Your task to perform on an android device: What's on my calendar today? Image 0: 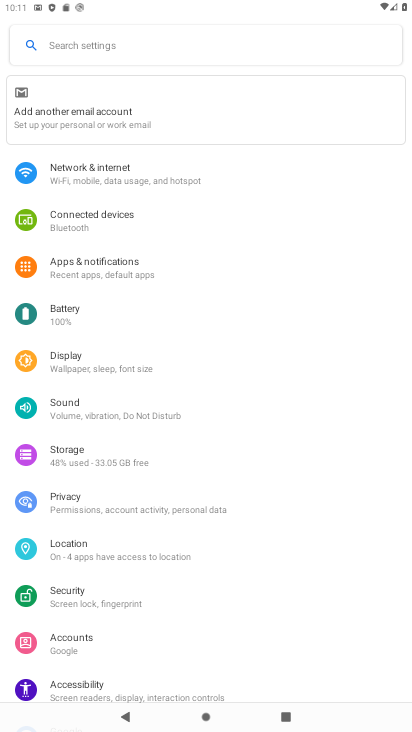
Step 0: press home button
Your task to perform on an android device: What's on my calendar today? Image 1: 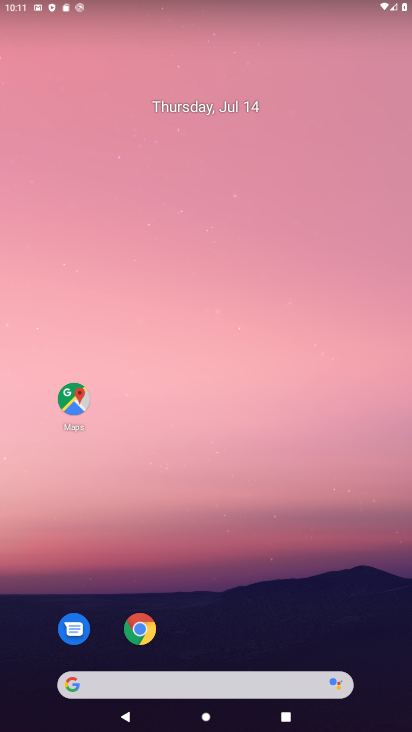
Step 1: drag from (265, 608) to (233, 153)
Your task to perform on an android device: What's on my calendar today? Image 2: 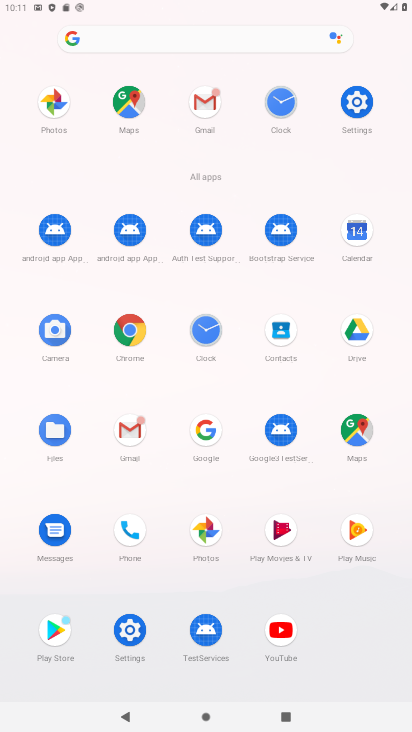
Step 2: click (349, 232)
Your task to perform on an android device: What's on my calendar today? Image 3: 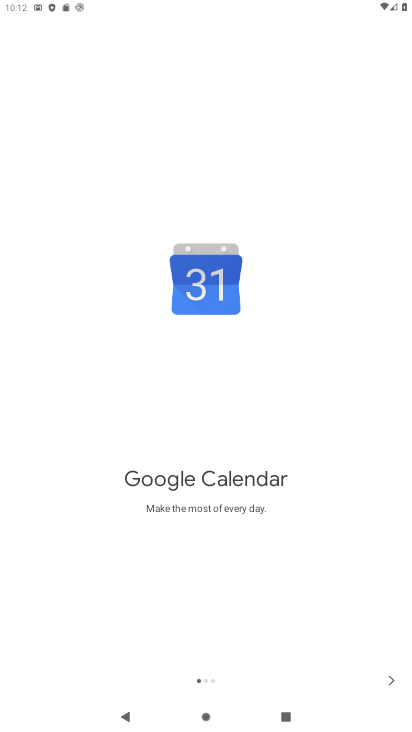
Step 3: click (383, 678)
Your task to perform on an android device: What's on my calendar today? Image 4: 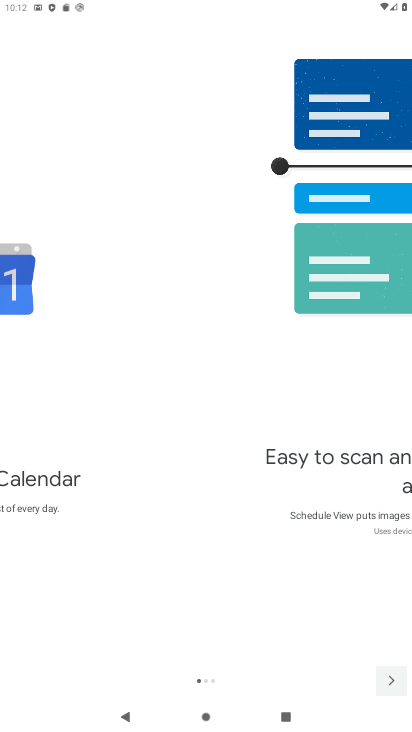
Step 4: click (383, 678)
Your task to perform on an android device: What's on my calendar today? Image 5: 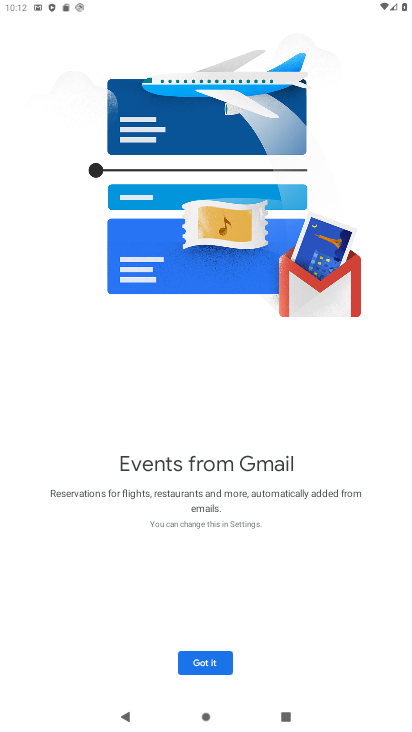
Step 5: click (210, 666)
Your task to perform on an android device: What's on my calendar today? Image 6: 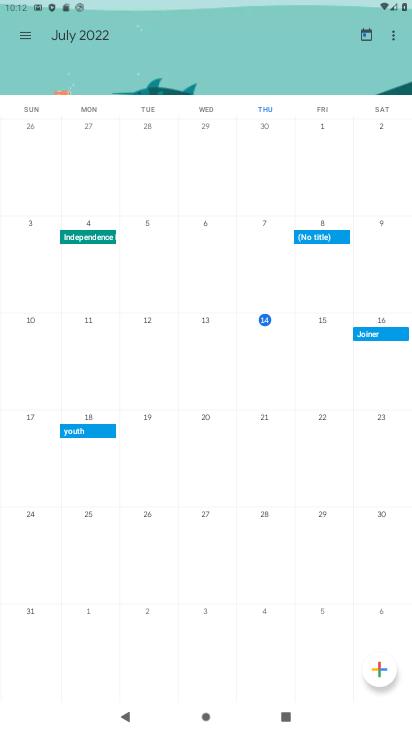
Step 6: click (260, 336)
Your task to perform on an android device: What's on my calendar today? Image 7: 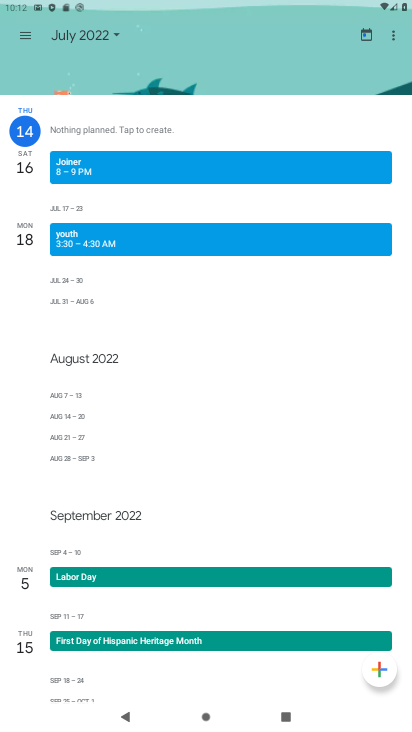
Step 7: task complete